Your task to perform on an android device: turn off javascript in the chrome app Image 0: 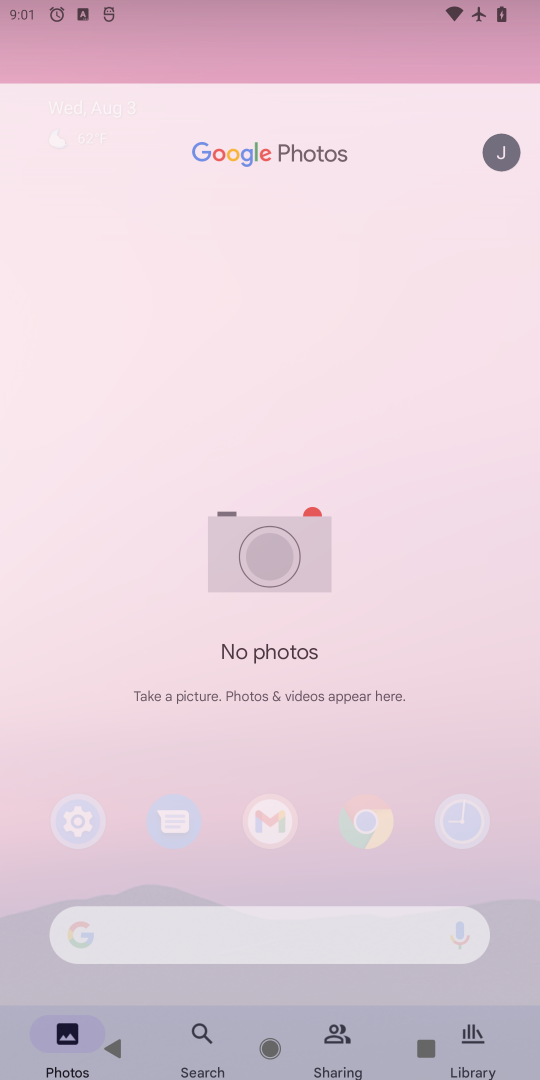
Step 0: press home button
Your task to perform on an android device: turn off javascript in the chrome app Image 1: 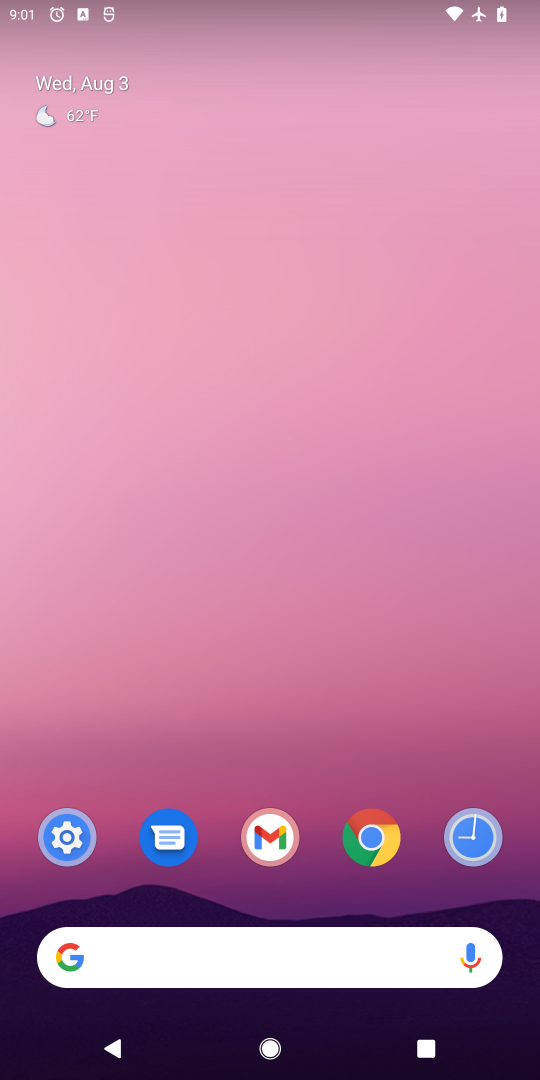
Step 1: click (376, 840)
Your task to perform on an android device: turn off javascript in the chrome app Image 2: 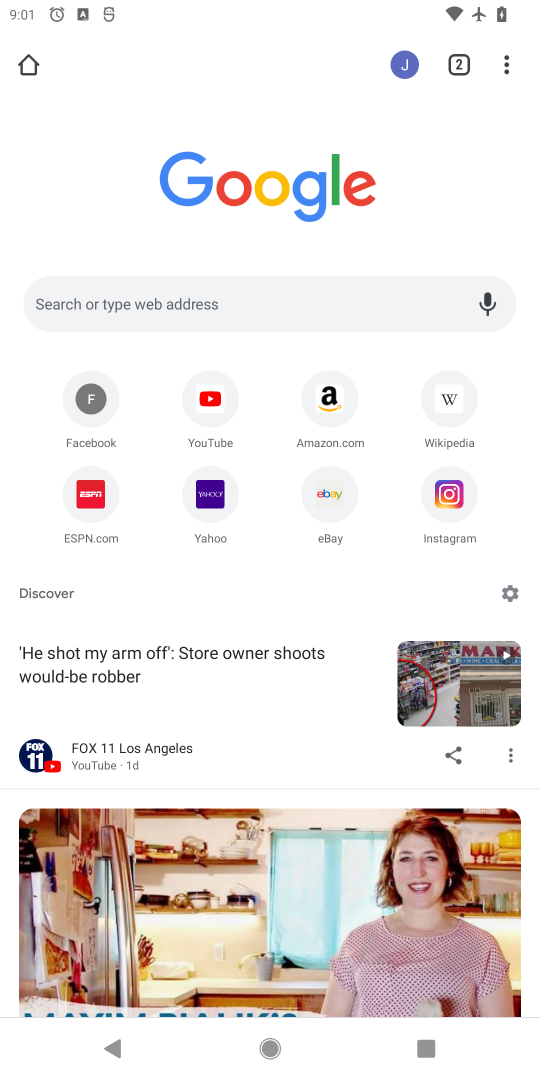
Step 2: drag from (496, 50) to (334, 618)
Your task to perform on an android device: turn off javascript in the chrome app Image 3: 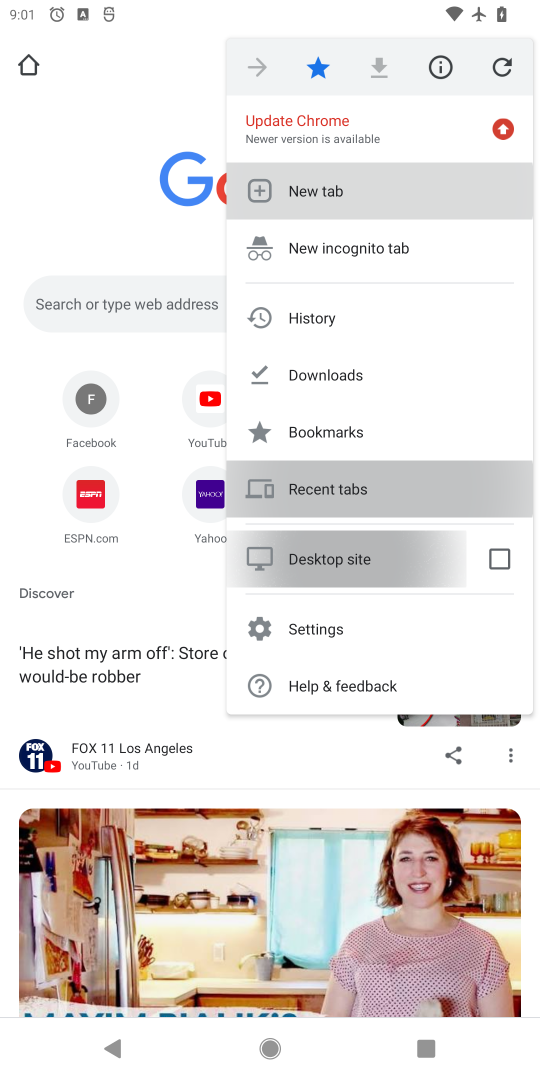
Step 3: click (307, 634)
Your task to perform on an android device: turn off javascript in the chrome app Image 4: 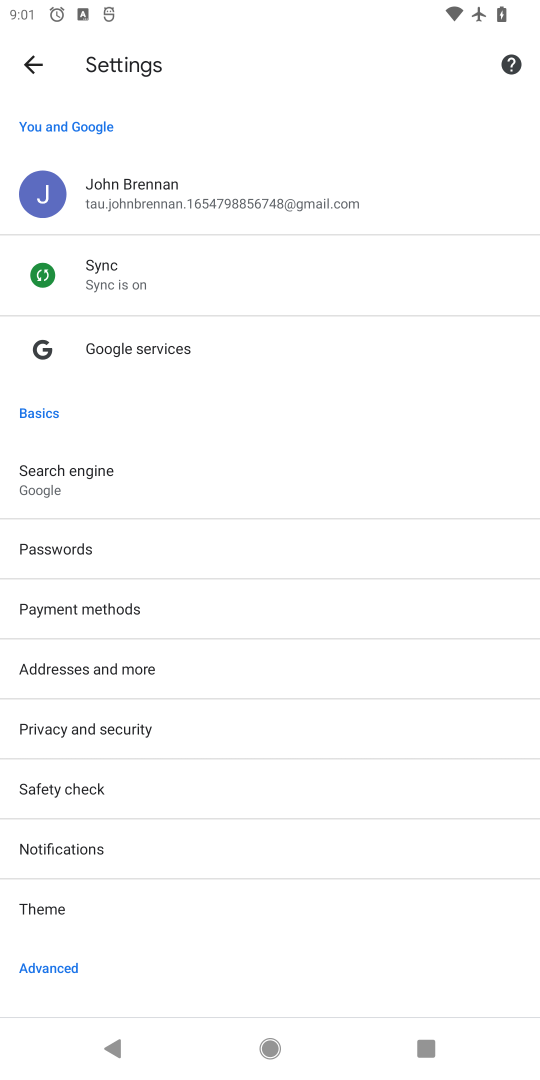
Step 4: drag from (184, 937) to (116, 286)
Your task to perform on an android device: turn off javascript in the chrome app Image 5: 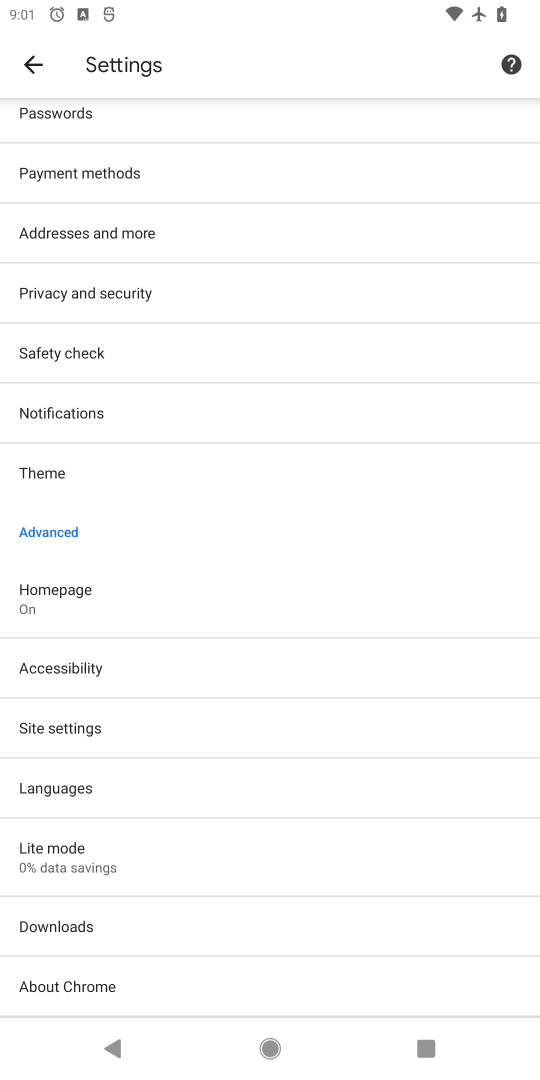
Step 5: click (66, 730)
Your task to perform on an android device: turn off javascript in the chrome app Image 6: 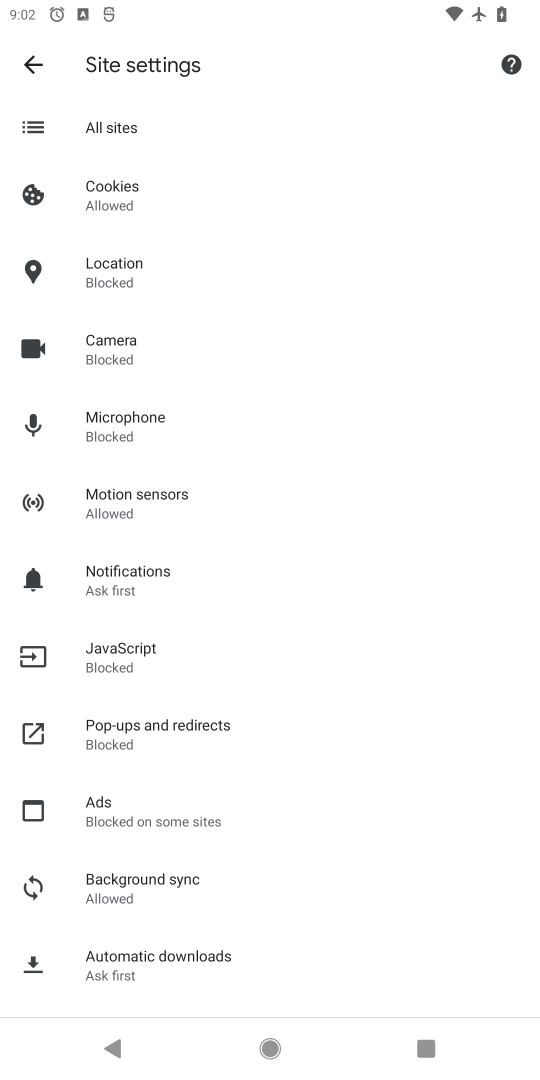
Step 6: click (124, 657)
Your task to perform on an android device: turn off javascript in the chrome app Image 7: 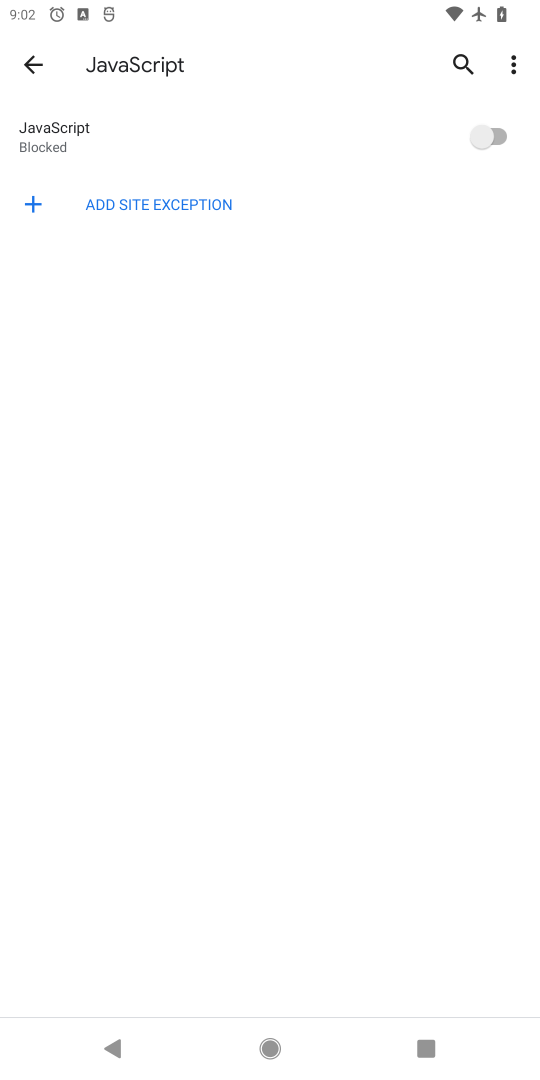
Step 7: click (484, 136)
Your task to perform on an android device: turn off javascript in the chrome app Image 8: 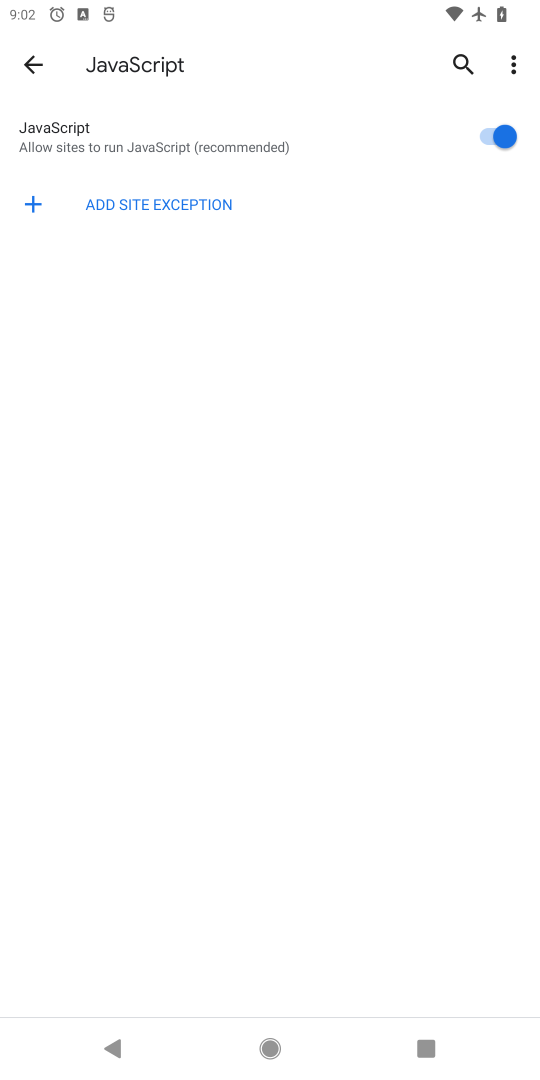
Step 8: task complete